Your task to perform on an android device: turn off location Image 0: 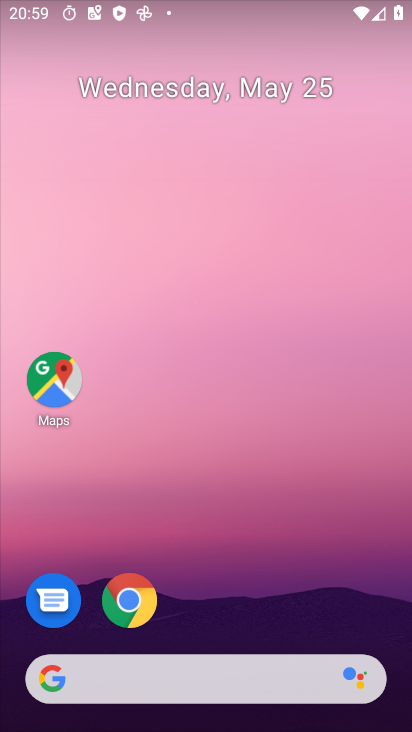
Step 0: drag from (311, 579) to (247, 162)
Your task to perform on an android device: turn off location Image 1: 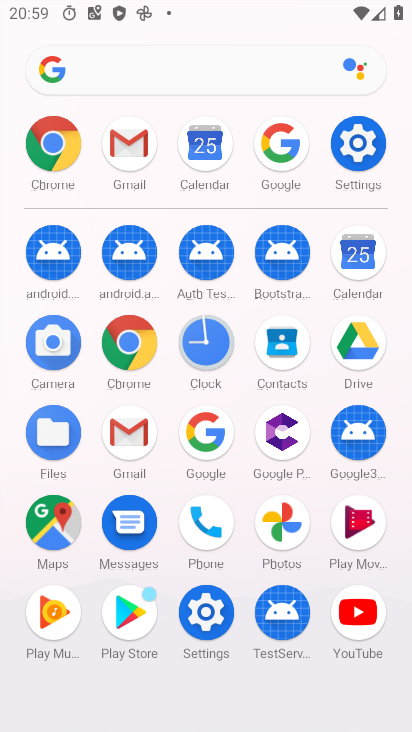
Step 1: click (371, 153)
Your task to perform on an android device: turn off location Image 2: 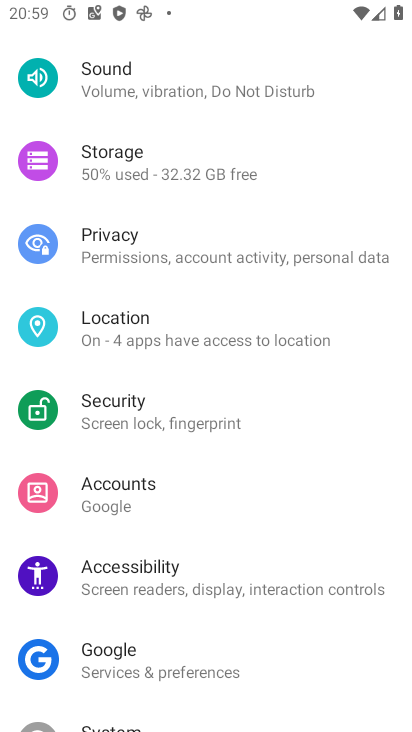
Step 2: click (202, 333)
Your task to perform on an android device: turn off location Image 3: 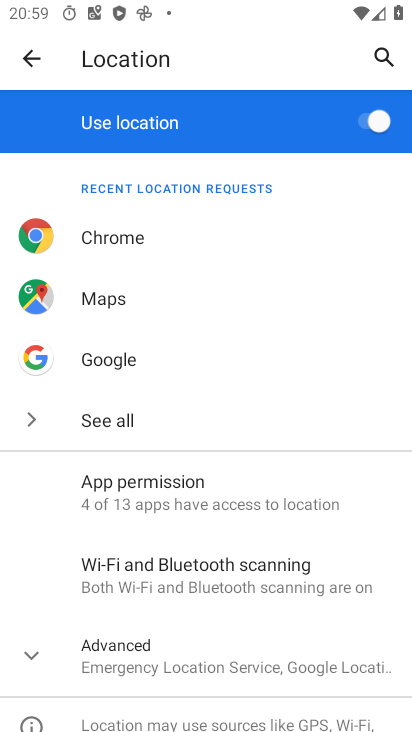
Step 3: task complete